Your task to perform on an android device: Open maps Image 0: 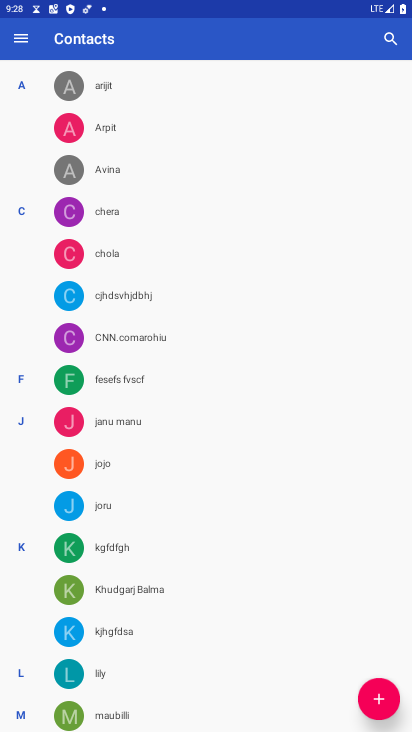
Step 0: press home button
Your task to perform on an android device: Open maps Image 1: 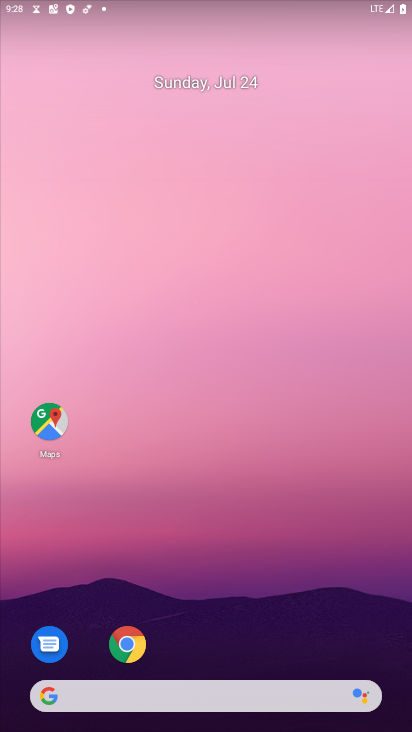
Step 1: click (52, 408)
Your task to perform on an android device: Open maps Image 2: 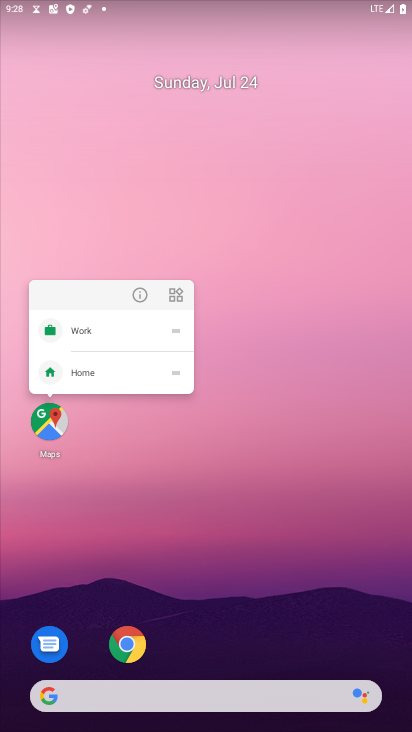
Step 2: click (49, 407)
Your task to perform on an android device: Open maps Image 3: 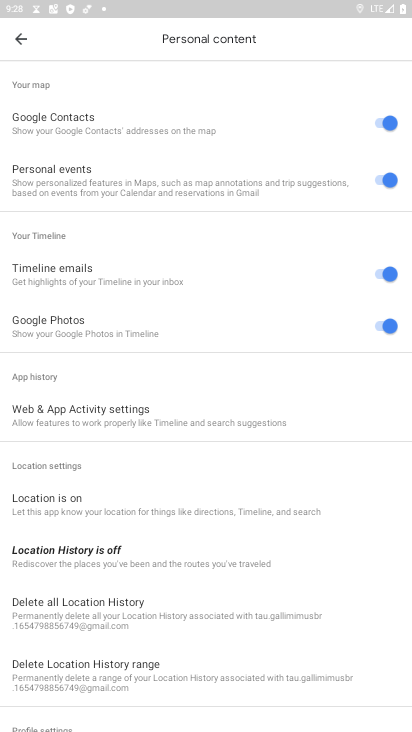
Step 3: click (20, 30)
Your task to perform on an android device: Open maps Image 4: 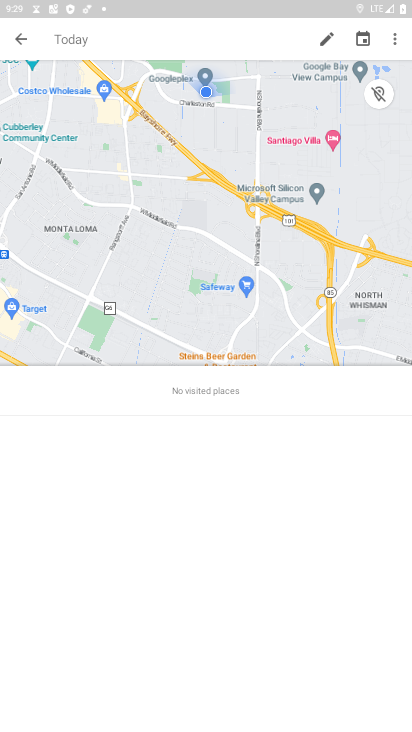
Step 4: click (20, 30)
Your task to perform on an android device: Open maps Image 5: 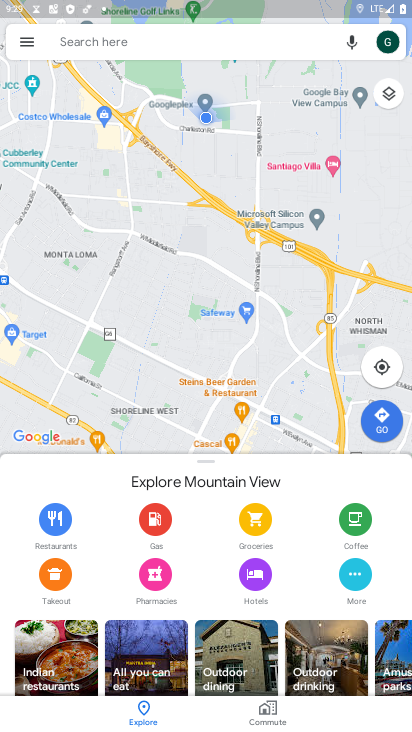
Step 5: task complete